Your task to perform on an android device: delete location history Image 0: 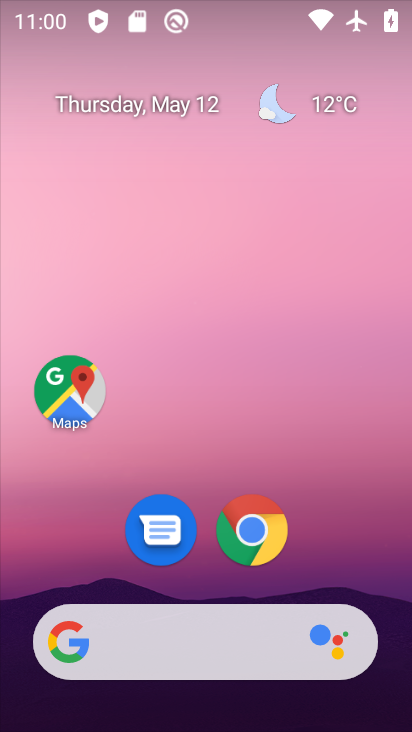
Step 0: click (72, 406)
Your task to perform on an android device: delete location history Image 1: 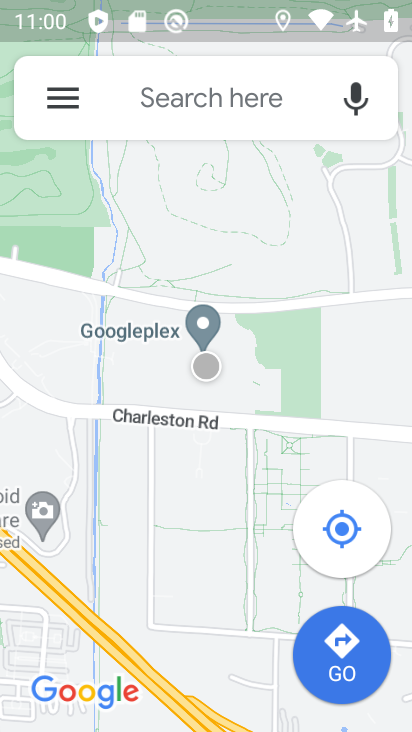
Step 1: click (64, 99)
Your task to perform on an android device: delete location history Image 2: 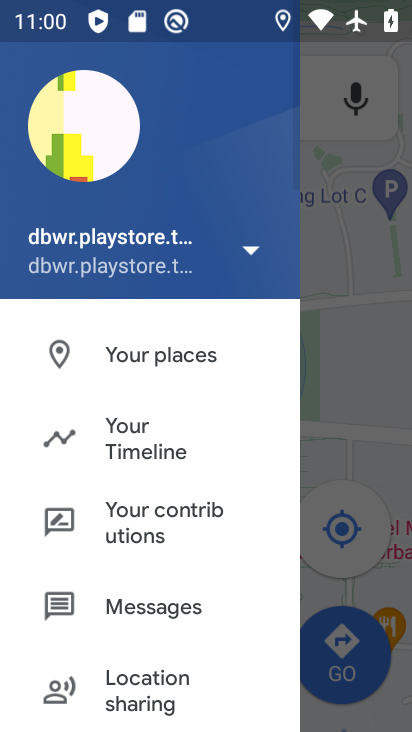
Step 2: click (144, 433)
Your task to perform on an android device: delete location history Image 3: 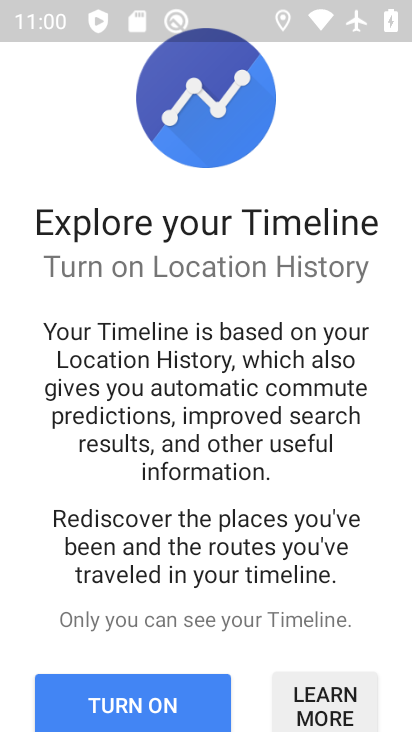
Step 3: drag from (191, 604) to (335, 206)
Your task to perform on an android device: delete location history Image 4: 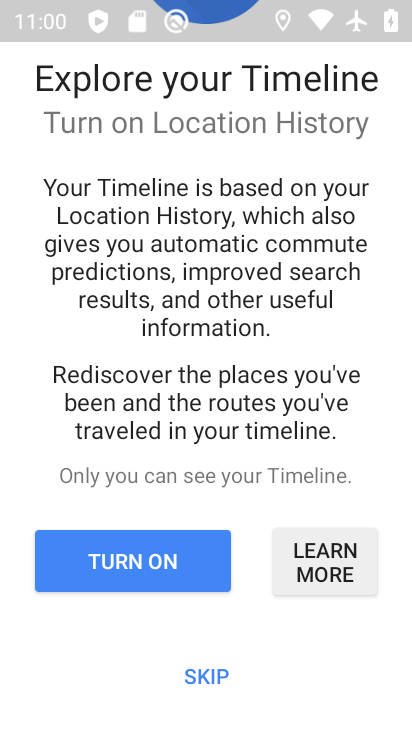
Step 4: click (217, 679)
Your task to perform on an android device: delete location history Image 5: 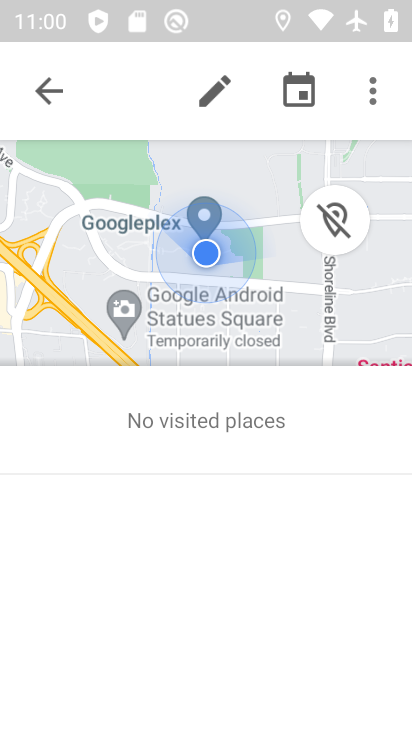
Step 5: click (374, 96)
Your task to perform on an android device: delete location history Image 6: 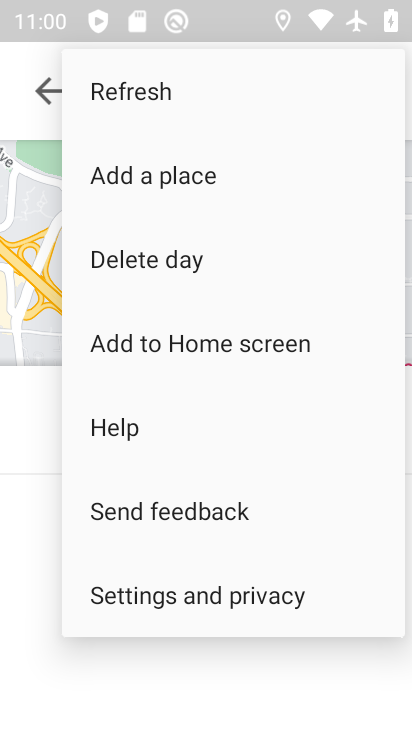
Step 6: click (205, 597)
Your task to perform on an android device: delete location history Image 7: 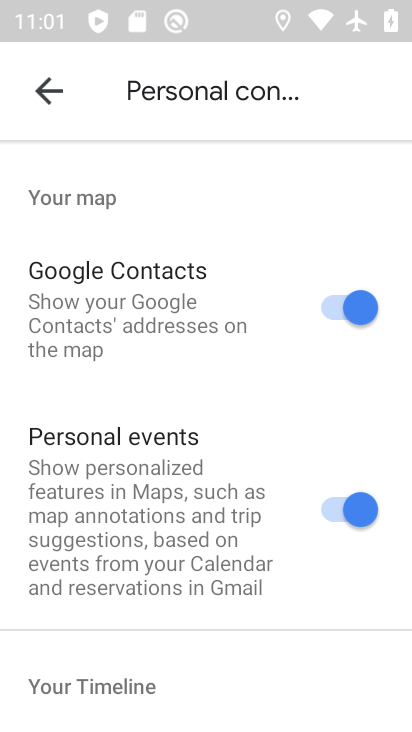
Step 7: drag from (212, 598) to (318, 103)
Your task to perform on an android device: delete location history Image 8: 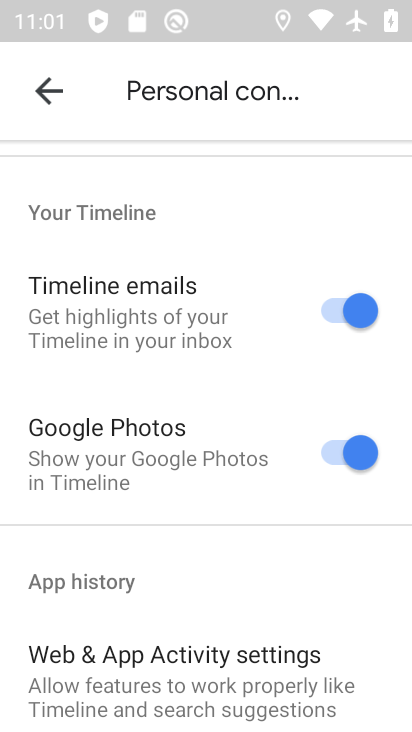
Step 8: drag from (160, 685) to (305, 63)
Your task to perform on an android device: delete location history Image 9: 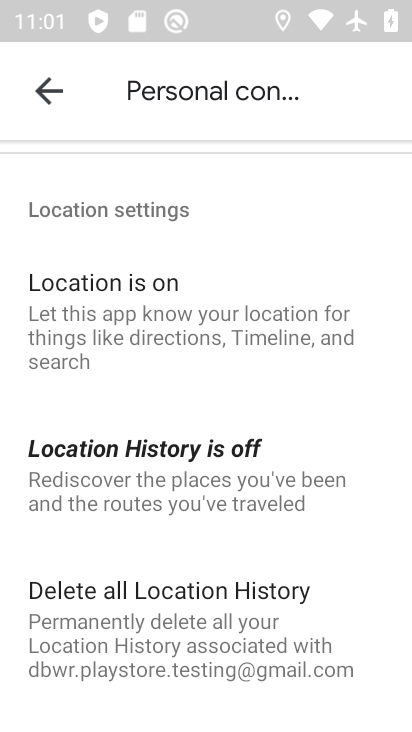
Step 9: click (140, 614)
Your task to perform on an android device: delete location history Image 10: 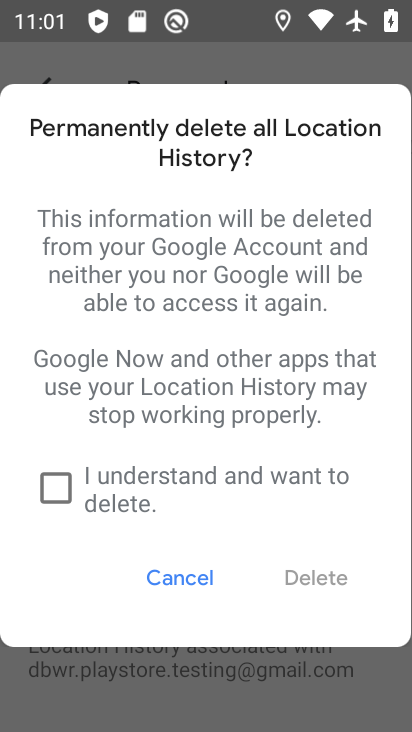
Step 10: click (56, 481)
Your task to perform on an android device: delete location history Image 11: 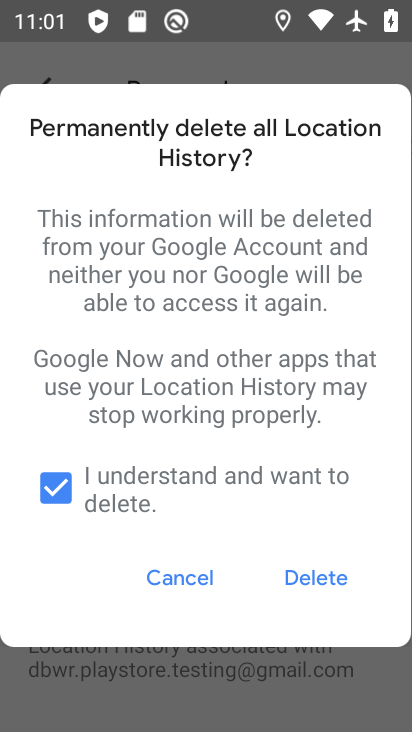
Step 11: click (309, 578)
Your task to perform on an android device: delete location history Image 12: 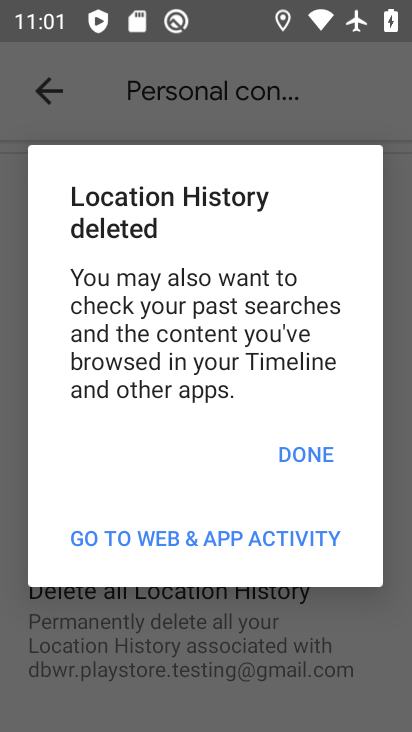
Step 12: click (307, 448)
Your task to perform on an android device: delete location history Image 13: 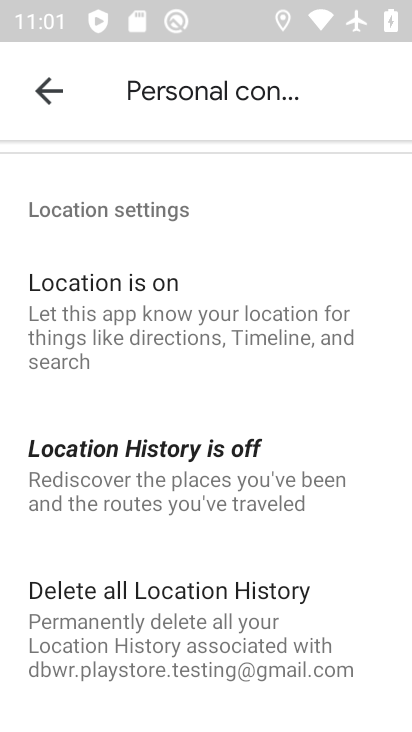
Step 13: task complete